Your task to perform on an android device: What's the weather like in Mumbai? Image 0: 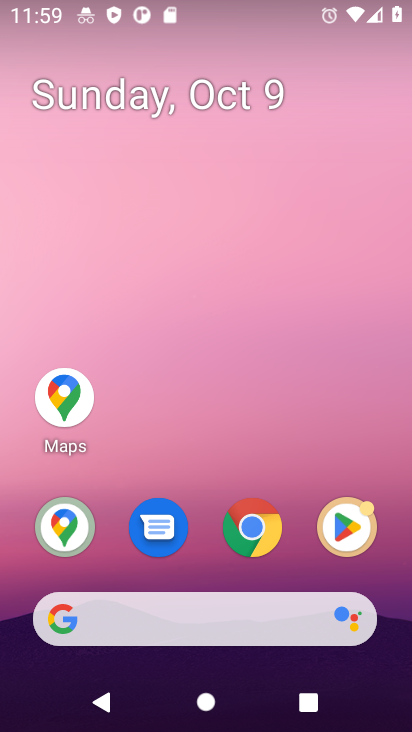
Step 0: click (257, 515)
Your task to perform on an android device: What's the weather like in Mumbai? Image 1: 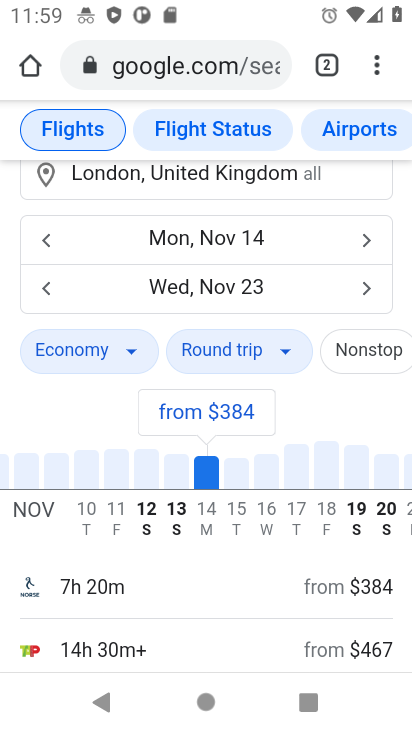
Step 1: click (164, 76)
Your task to perform on an android device: What's the weather like in Mumbai? Image 2: 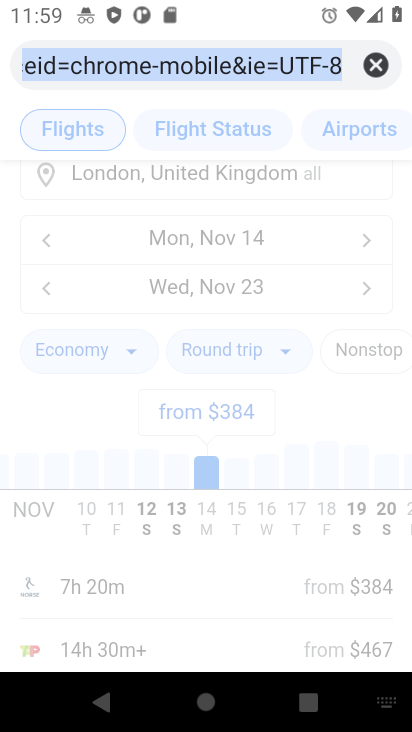
Step 2: type "What's the weather like in Mumbai?"
Your task to perform on an android device: What's the weather like in Mumbai? Image 3: 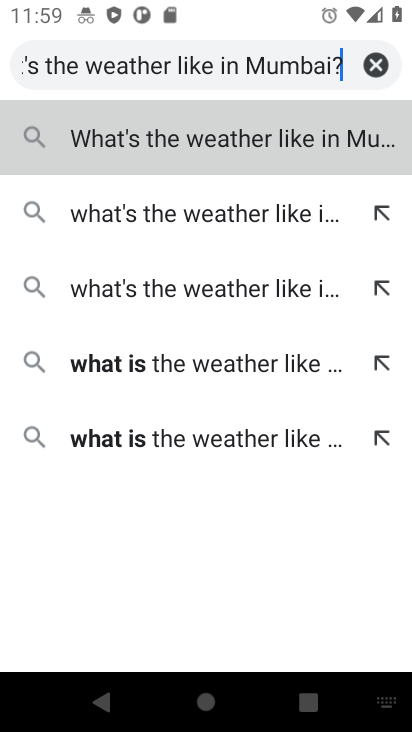
Step 3: click (209, 136)
Your task to perform on an android device: What's the weather like in Mumbai? Image 4: 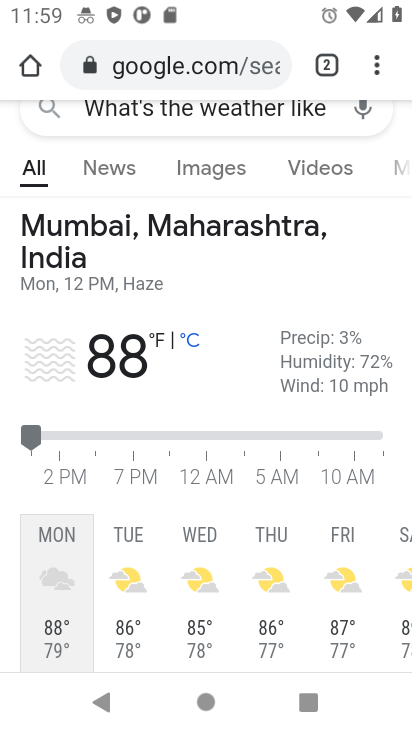
Step 4: task complete